Your task to perform on an android device: turn off location Image 0: 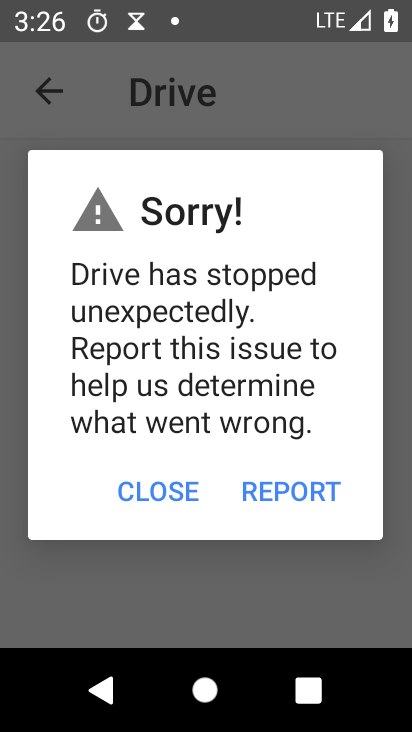
Step 0: press home button
Your task to perform on an android device: turn off location Image 1: 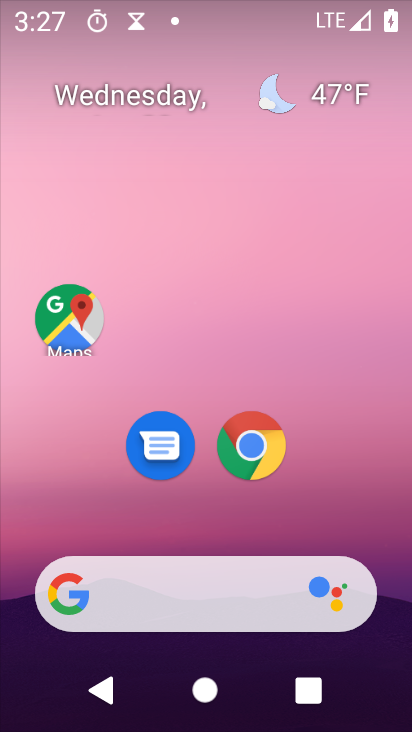
Step 1: drag from (358, 537) to (377, 6)
Your task to perform on an android device: turn off location Image 2: 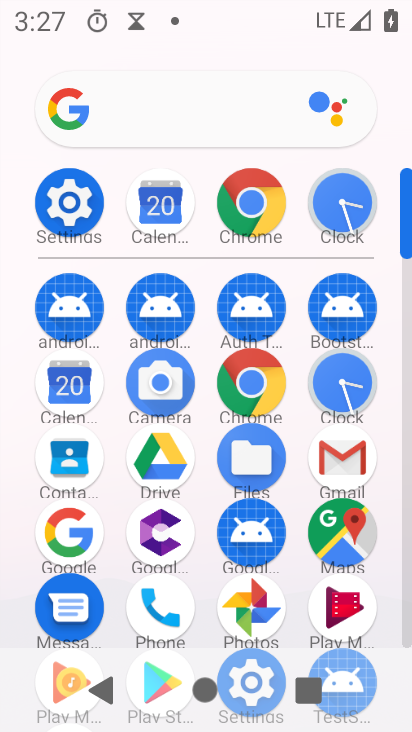
Step 2: click (68, 211)
Your task to perform on an android device: turn off location Image 3: 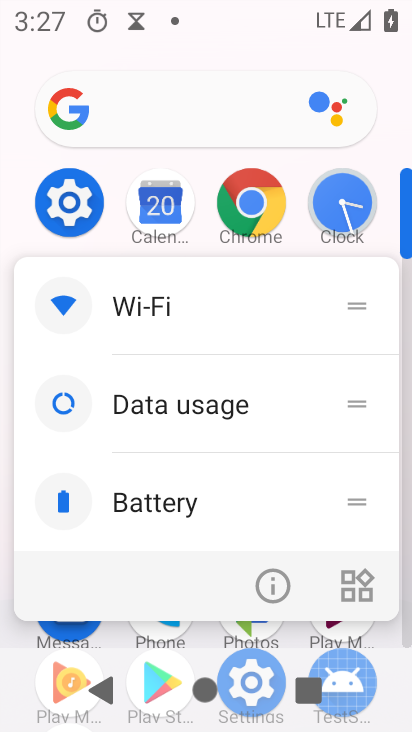
Step 3: click (68, 202)
Your task to perform on an android device: turn off location Image 4: 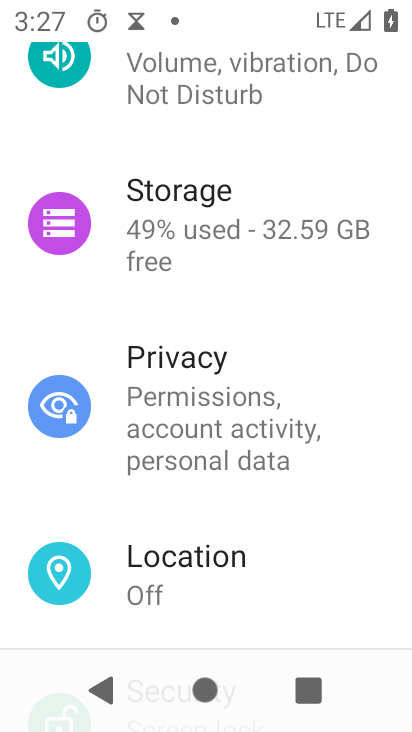
Step 4: click (157, 569)
Your task to perform on an android device: turn off location Image 5: 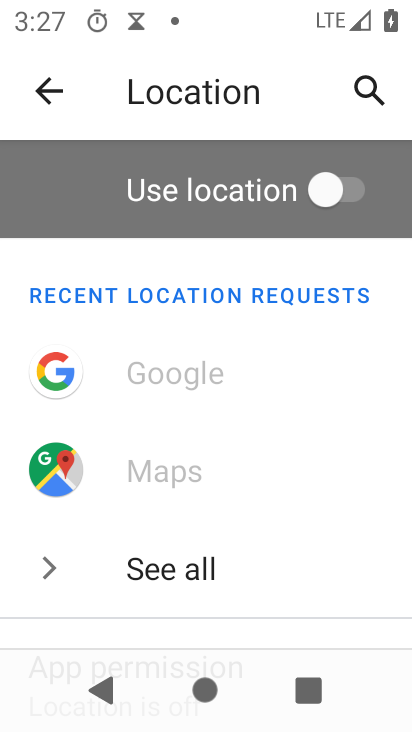
Step 5: task complete